Your task to perform on an android device: toggle pop-ups in chrome Image 0: 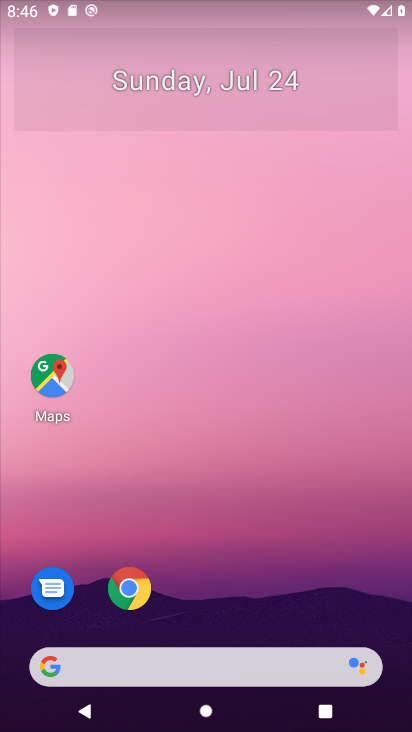
Step 0: drag from (279, 620) to (403, 2)
Your task to perform on an android device: toggle pop-ups in chrome Image 1: 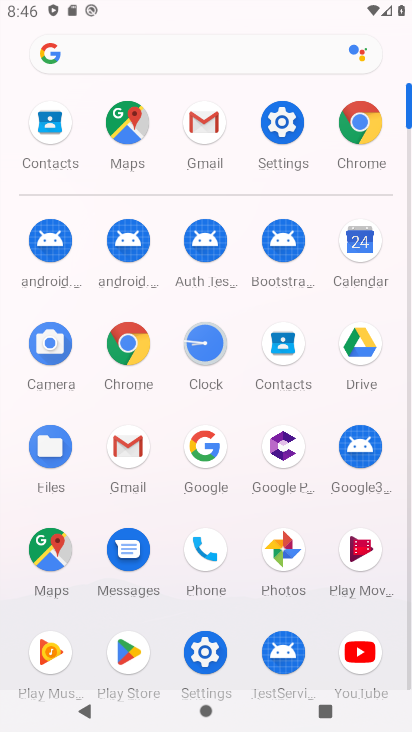
Step 1: click (356, 124)
Your task to perform on an android device: toggle pop-ups in chrome Image 2: 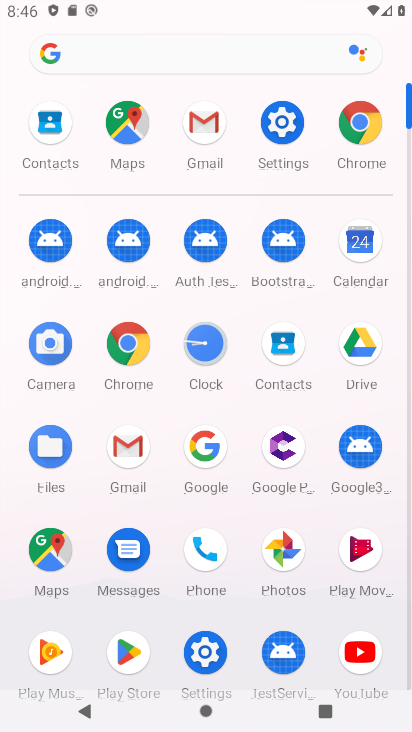
Step 2: click (356, 124)
Your task to perform on an android device: toggle pop-ups in chrome Image 3: 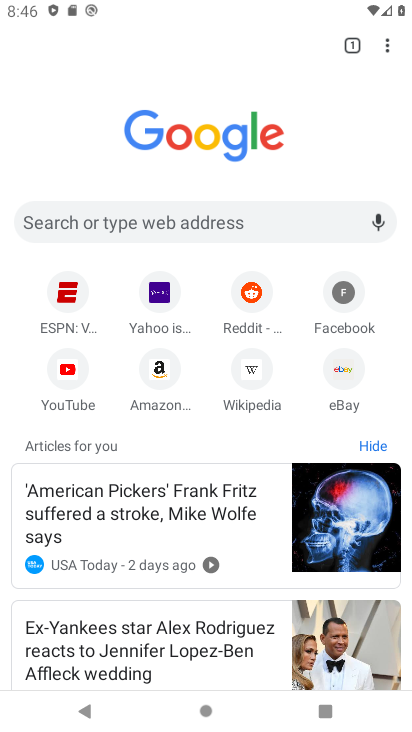
Step 3: click (391, 46)
Your task to perform on an android device: toggle pop-ups in chrome Image 4: 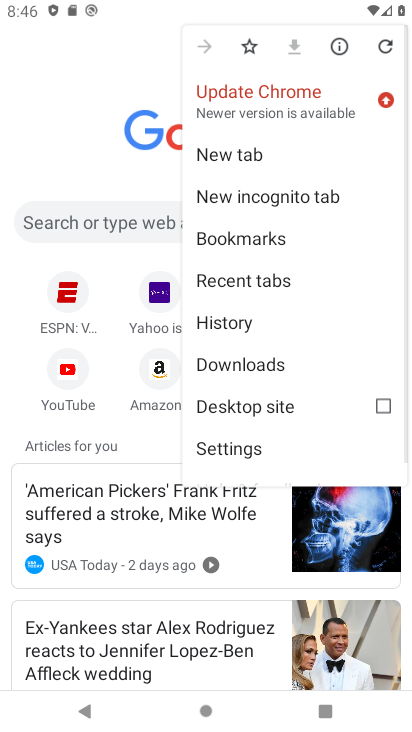
Step 4: click (294, 452)
Your task to perform on an android device: toggle pop-ups in chrome Image 5: 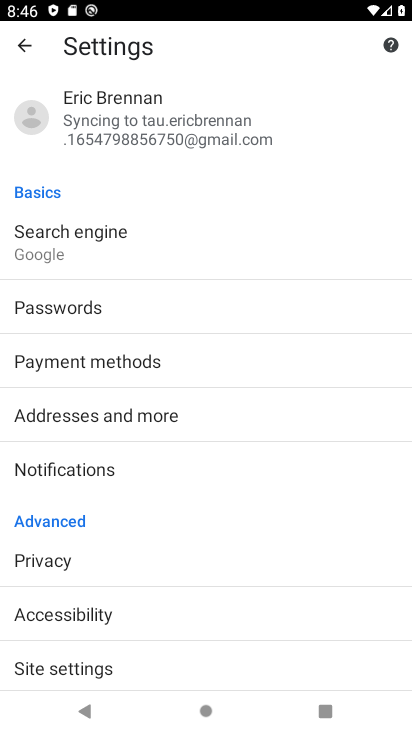
Step 5: click (112, 666)
Your task to perform on an android device: toggle pop-ups in chrome Image 6: 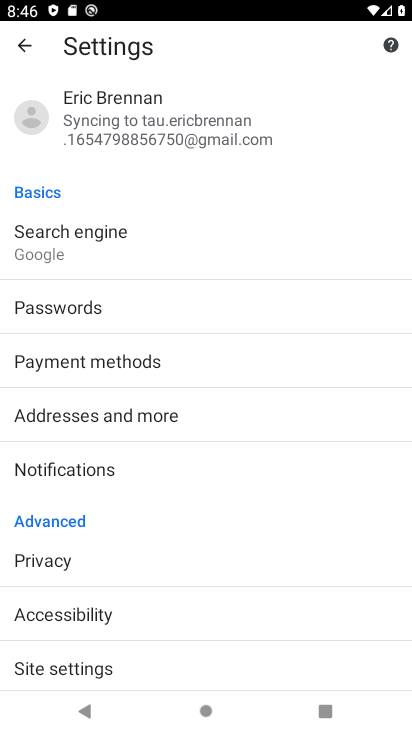
Step 6: click (112, 666)
Your task to perform on an android device: toggle pop-ups in chrome Image 7: 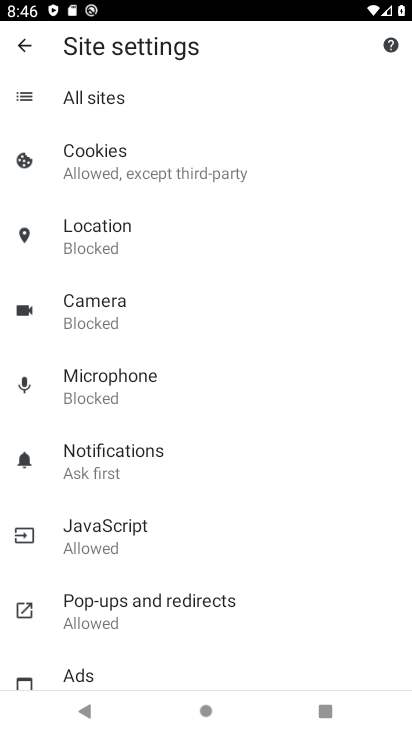
Step 7: click (182, 595)
Your task to perform on an android device: toggle pop-ups in chrome Image 8: 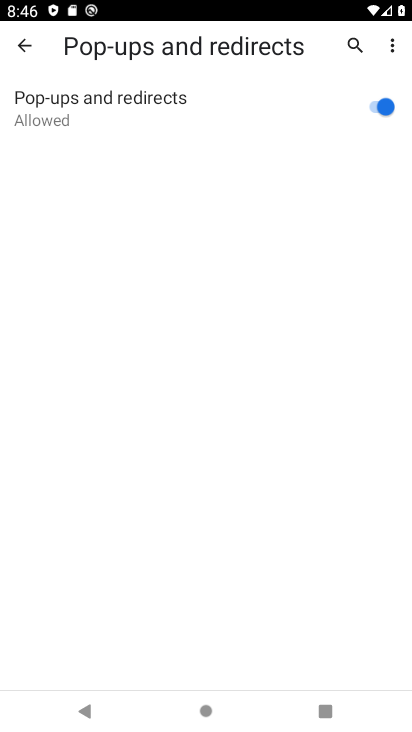
Step 8: click (388, 105)
Your task to perform on an android device: toggle pop-ups in chrome Image 9: 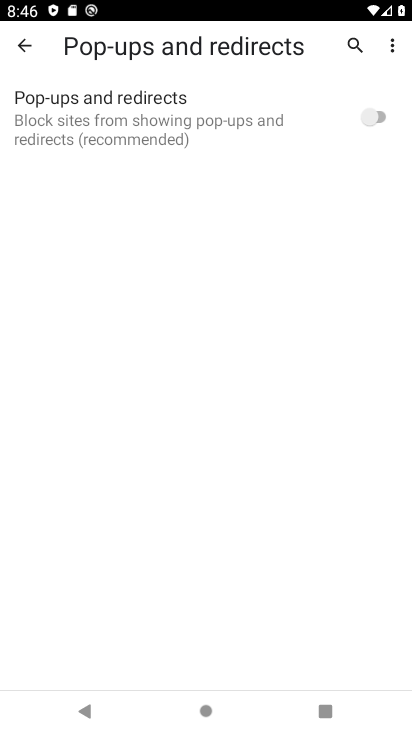
Step 9: task complete